Your task to perform on an android device: Go to Wikipedia Image 0: 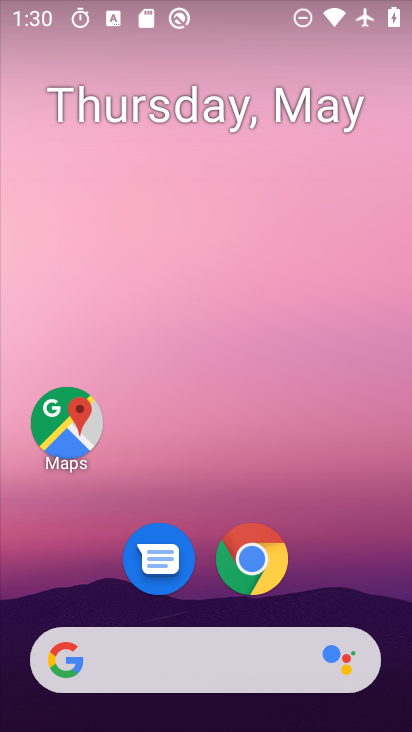
Step 0: drag from (173, 608) to (172, 195)
Your task to perform on an android device: Go to Wikipedia Image 1: 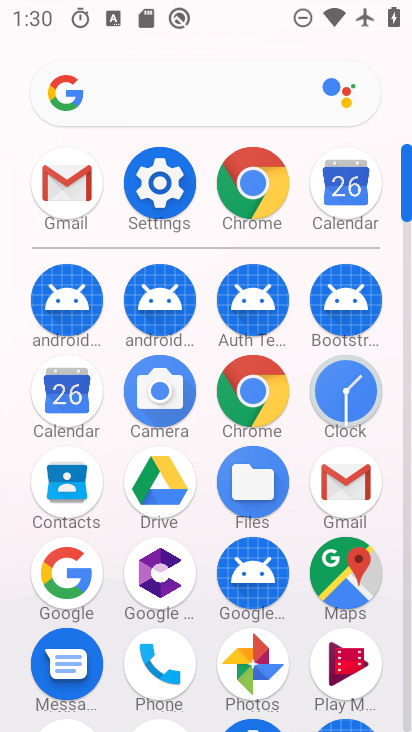
Step 1: click (164, 198)
Your task to perform on an android device: Go to Wikipedia Image 2: 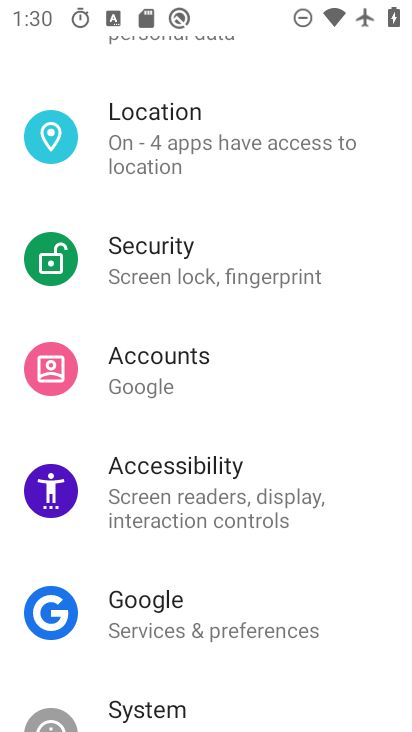
Step 2: press home button
Your task to perform on an android device: Go to Wikipedia Image 3: 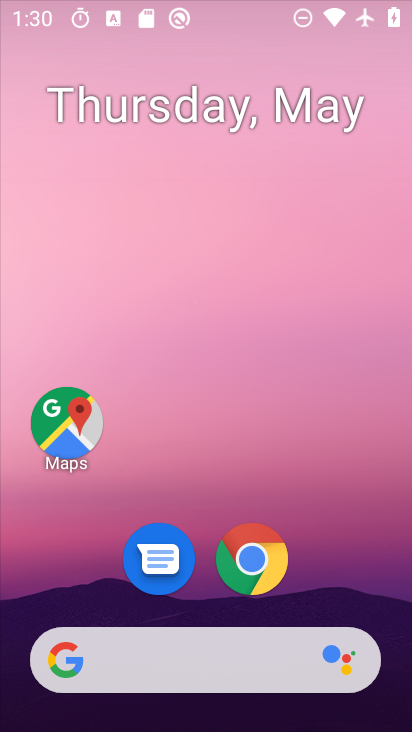
Step 3: drag from (209, 588) to (209, 202)
Your task to perform on an android device: Go to Wikipedia Image 4: 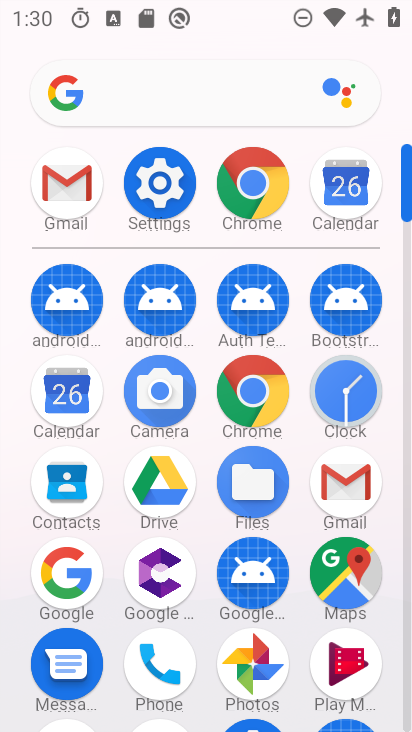
Step 4: click (282, 190)
Your task to perform on an android device: Go to Wikipedia Image 5: 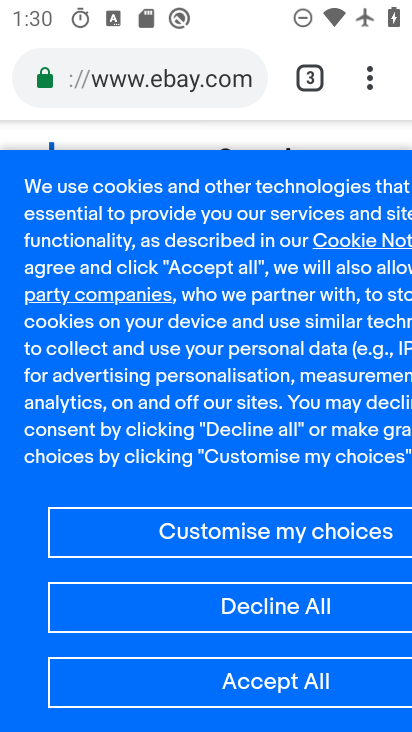
Step 5: click (229, 77)
Your task to perform on an android device: Go to Wikipedia Image 6: 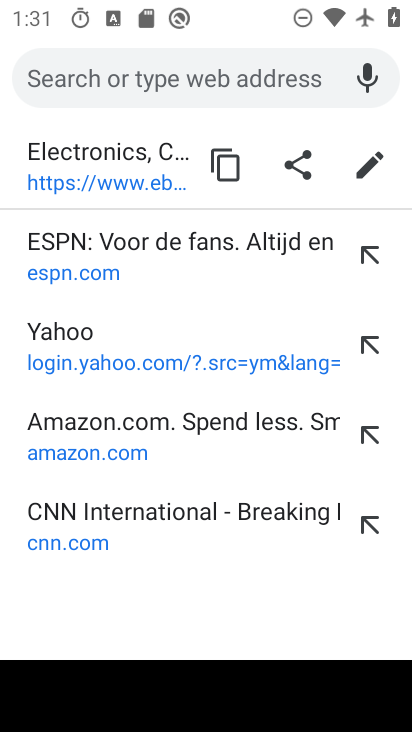
Step 6: type "wikipedia"
Your task to perform on an android device: Go to Wikipedia Image 7: 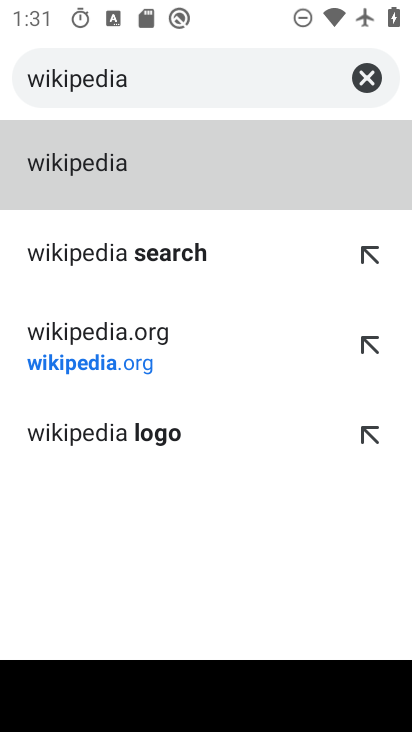
Step 7: click (138, 347)
Your task to perform on an android device: Go to Wikipedia Image 8: 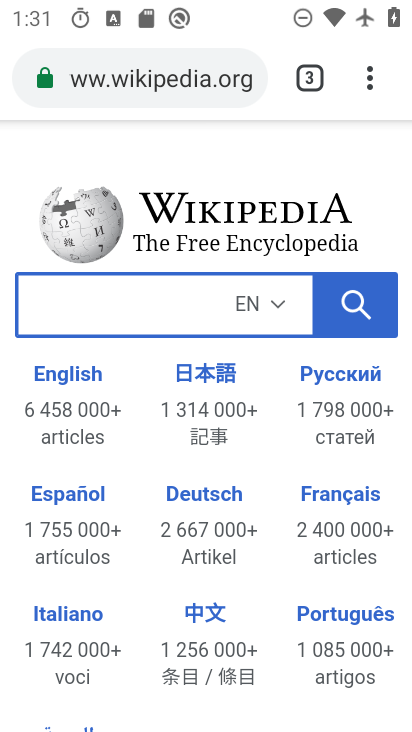
Step 8: task complete